Your task to perform on an android device: Open wifi settings Image 0: 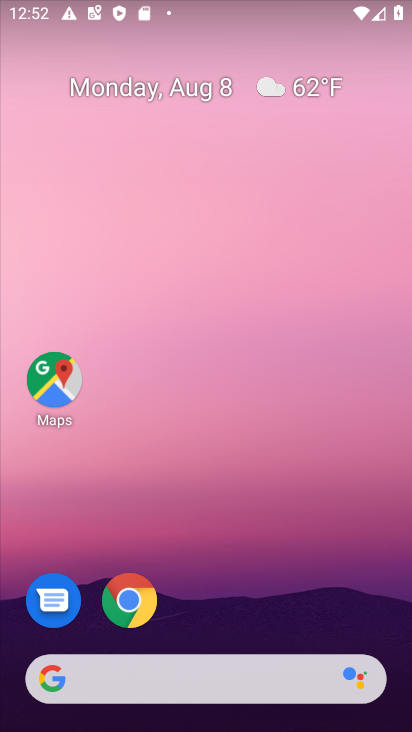
Step 0: drag from (207, 589) to (255, 182)
Your task to perform on an android device: Open wifi settings Image 1: 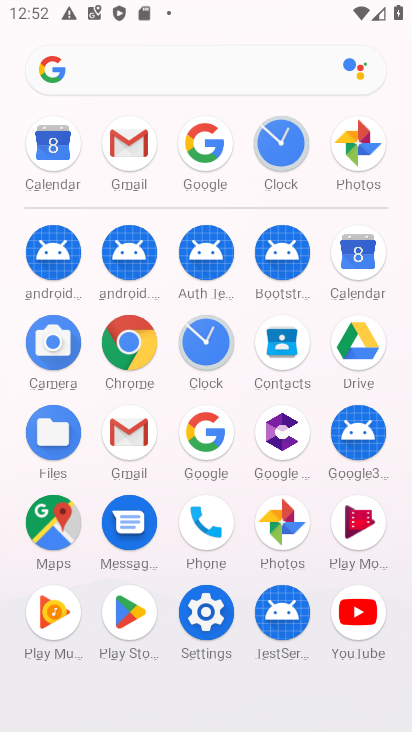
Step 1: click (217, 600)
Your task to perform on an android device: Open wifi settings Image 2: 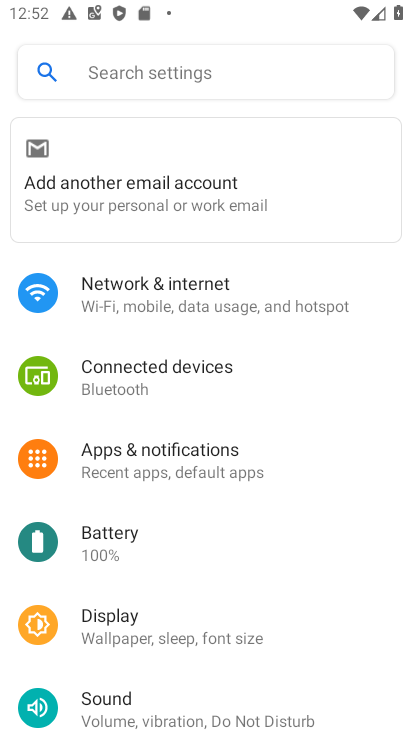
Step 2: click (155, 315)
Your task to perform on an android device: Open wifi settings Image 3: 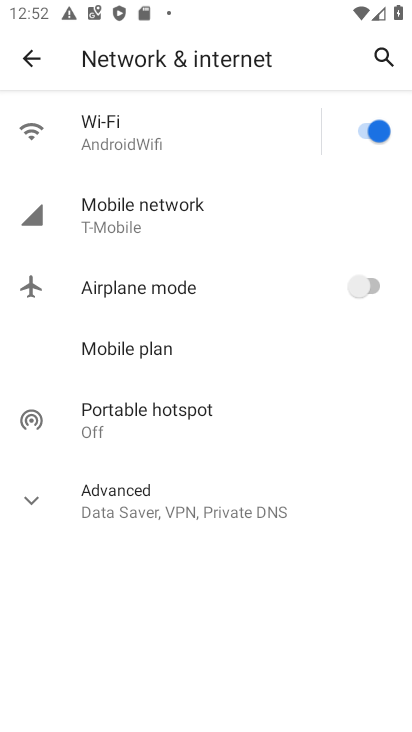
Step 3: click (117, 119)
Your task to perform on an android device: Open wifi settings Image 4: 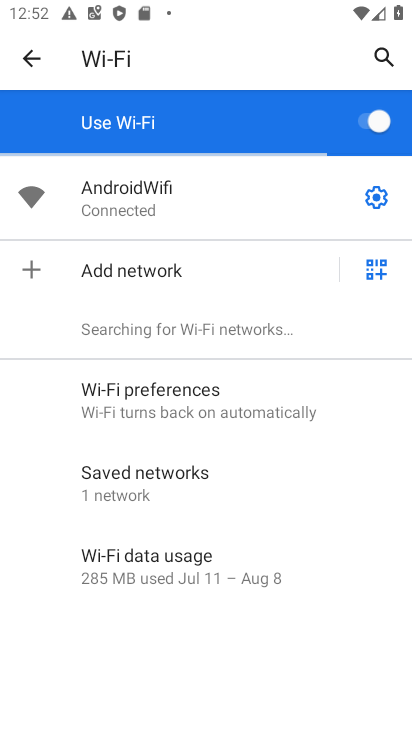
Step 4: task complete